Your task to perform on an android device: check data usage Image 0: 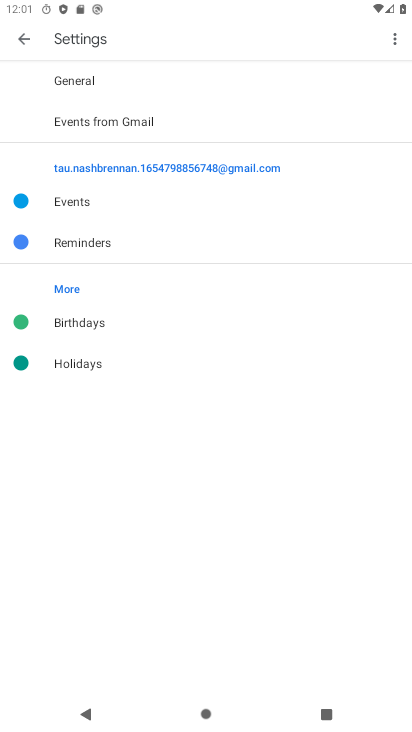
Step 0: press home button
Your task to perform on an android device: check data usage Image 1: 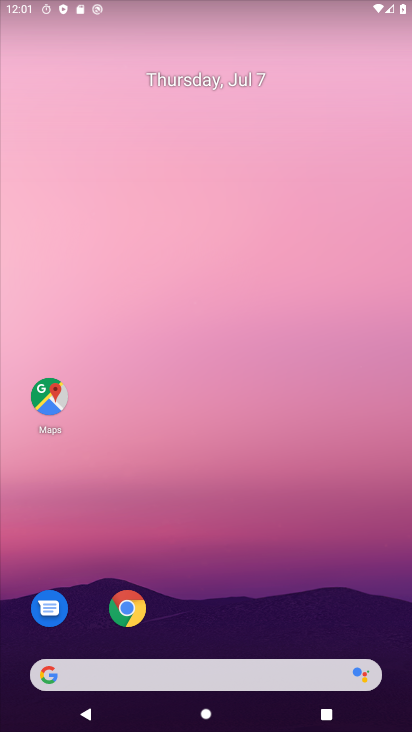
Step 1: drag from (312, 665) to (341, 97)
Your task to perform on an android device: check data usage Image 2: 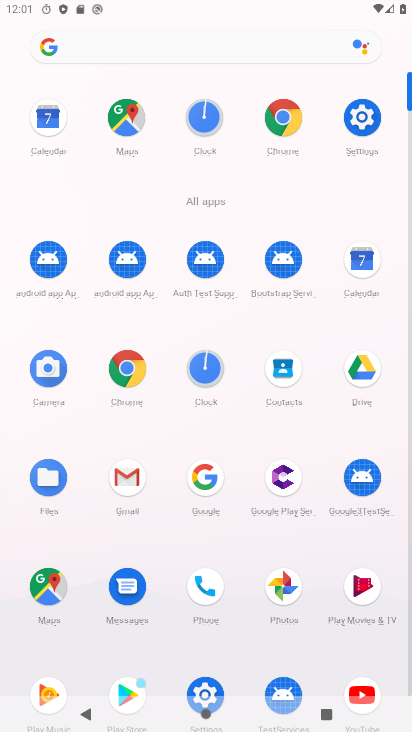
Step 2: click (363, 123)
Your task to perform on an android device: check data usage Image 3: 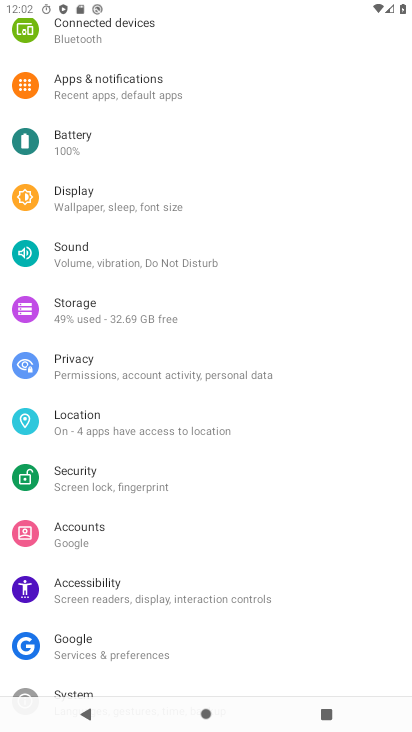
Step 3: drag from (262, 231) to (162, 461)
Your task to perform on an android device: check data usage Image 4: 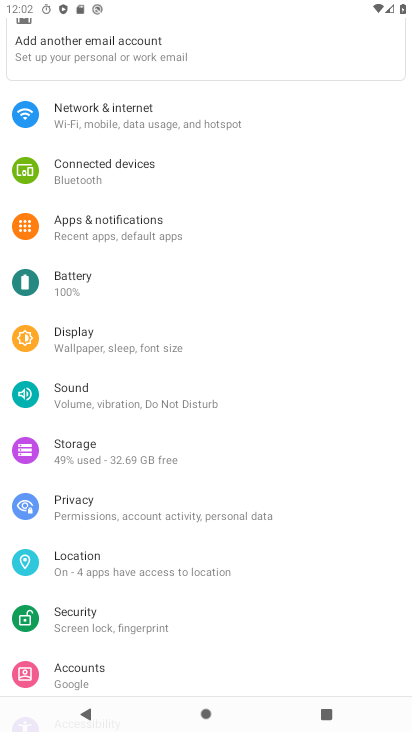
Step 4: click (139, 204)
Your task to perform on an android device: check data usage Image 5: 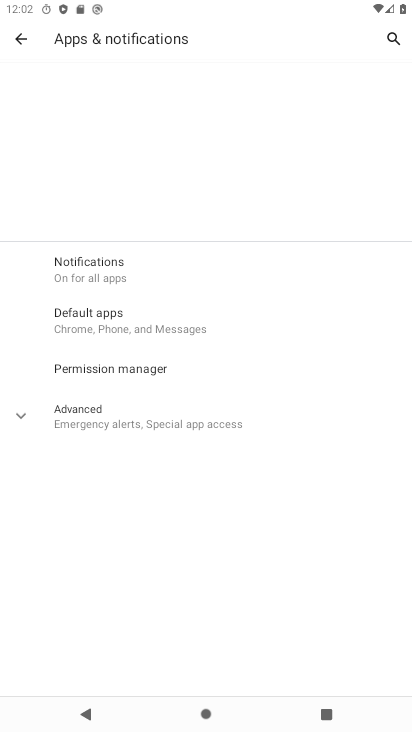
Step 5: press back button
Your task to perform on an android device: check data usage Image 6: 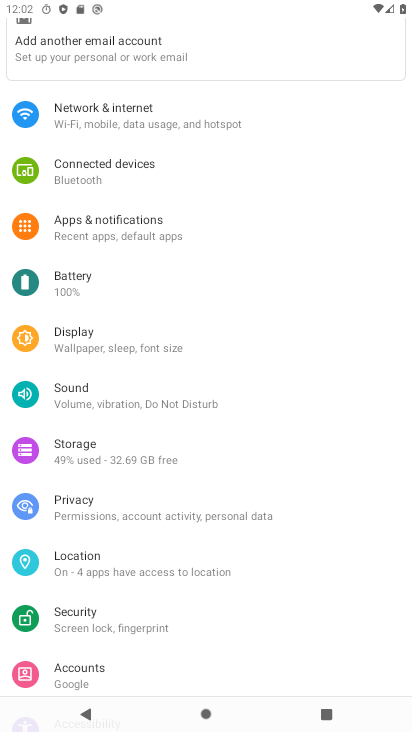
Step 6: click (151, 115)
Your task to perform on an android device: check data usage Image 7: 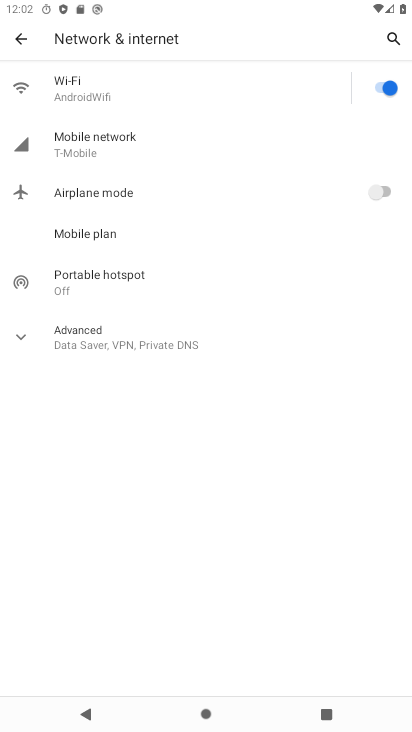
Step 7: click (125, 152)
Your task to perform on an android device: check data usage Image 8: 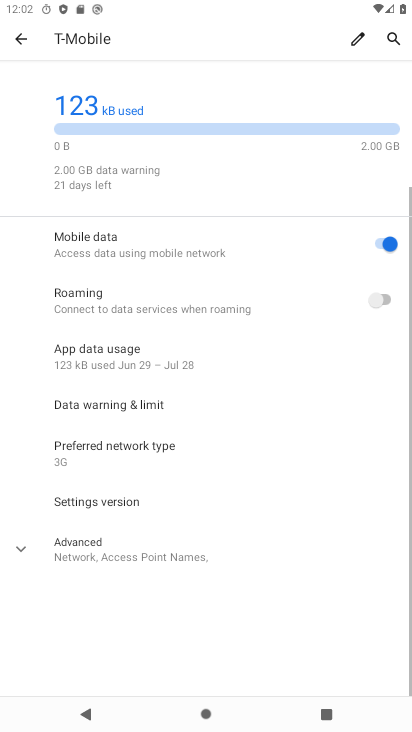
Step 8: task complete